Your task to perform on an android device: turn pop-ups off in chrome Image 0: 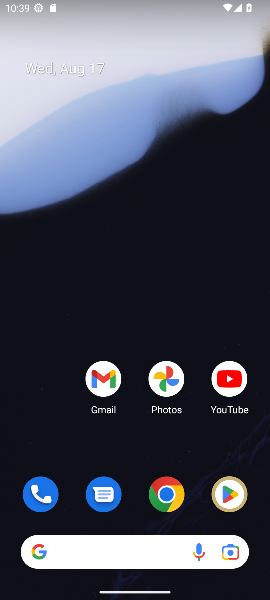
Step 0: click (178, 498)
Your task to perform on an android device: turn pop-ups off in chrome Image 1: 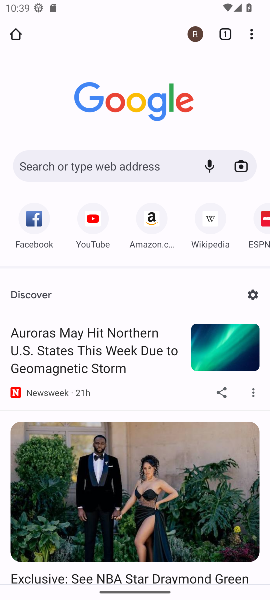
Step 1: click (246, 31)
Your task to perform on an android device: turn pop-ups off in chrome Image 2: 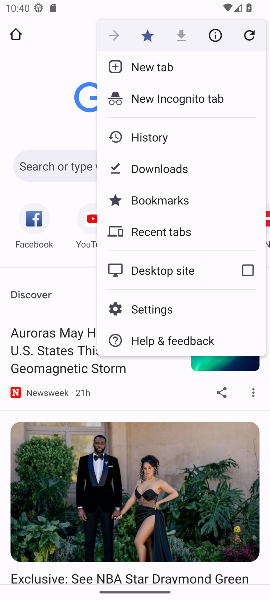
Step 2: click (153, 315)
Your task to perform on an android device: turn pop-ups off in chrome Image 3: 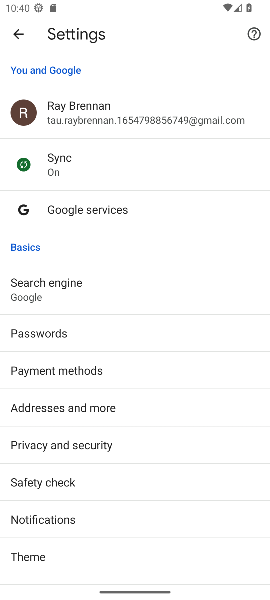
Step 3: drag from (109, 438) to (118, 219)
Your task to perform on an android device: turn pop-ups off in chrome Image 4: 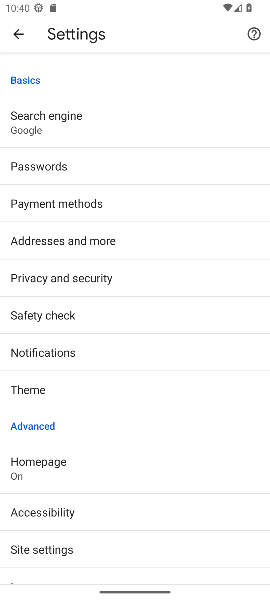
Step 4: drag from (62, 509) to (101, 171)
Your task to perform on an android device: turn pop-ups off in chrome Image 5: 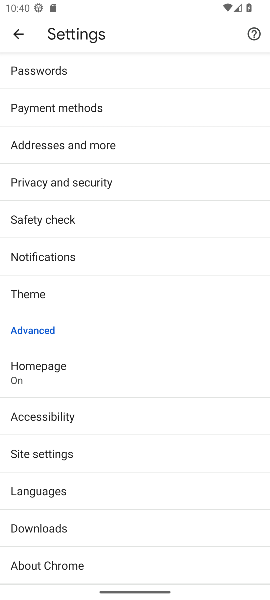
Step 5: click (58, 453)
Your task to perform on an android device: turn pop-ups off in chrome Image 6: 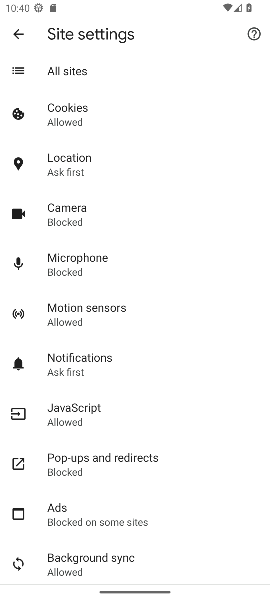
Step 6: click (98, 467)
Your task to perform on an android device: turn pop-ups off in chrome Image 7: 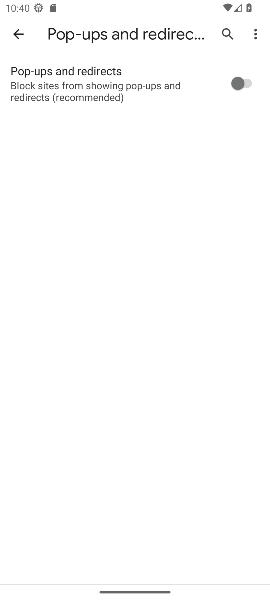
Step 7: task complete